Your task to perform on an android device: Go to Google Image 0: 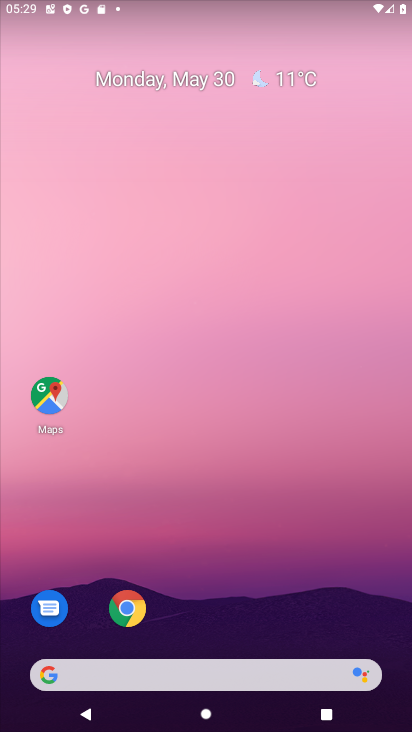
Step 0: drag from (279, 634) to (279, 286)
Your task to perform on an android device: Go to Google Image 1: 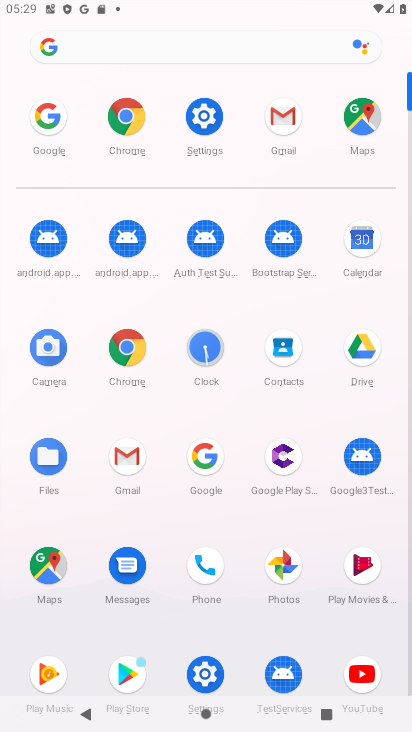
Step 1: click (205, 455)
Your task to perform on an android device: Go to Google Image 2: 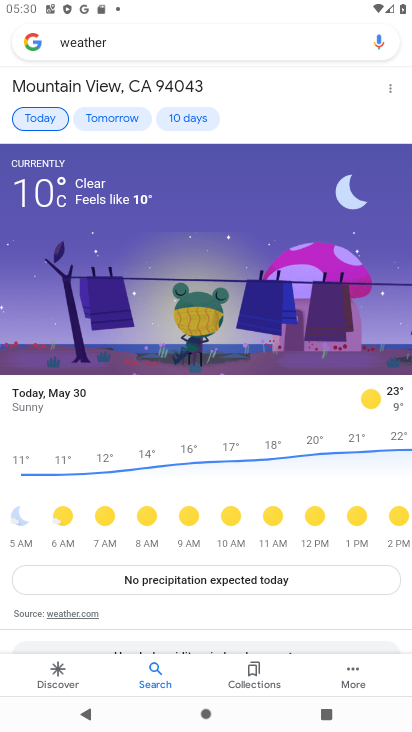
Step 2: task complete